Your task to perform on an android device: Go to Amazon Image 0: 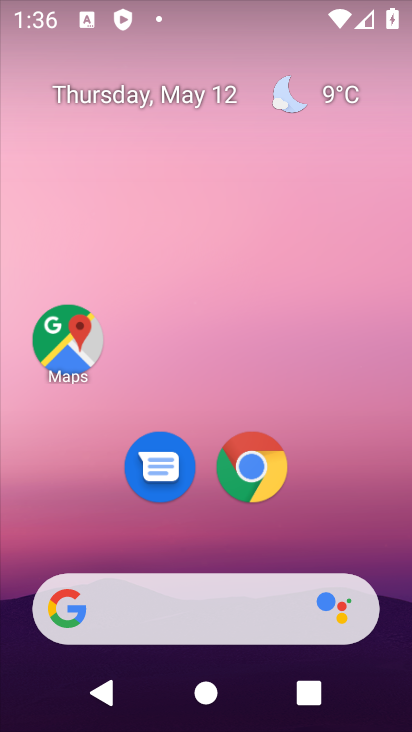
Step 0: drag from (324, 303) to (320, 138)
Your task to perform on an android device: Go to Amazon Image 1: 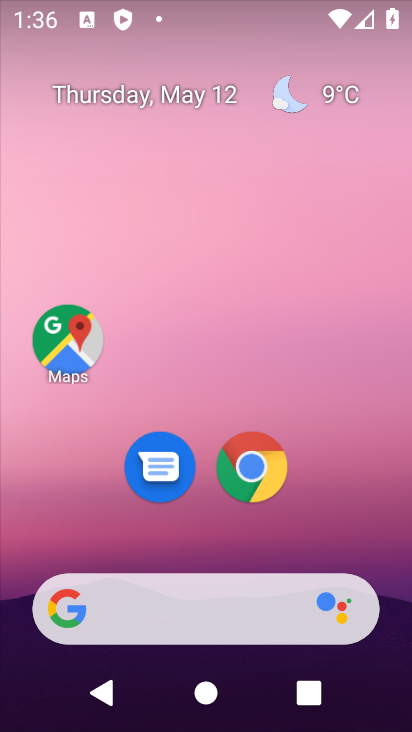
Step 1: drag from (255, 487) to (255, 29)
Your task to perform on an android device: Go to Amazon Image 2: 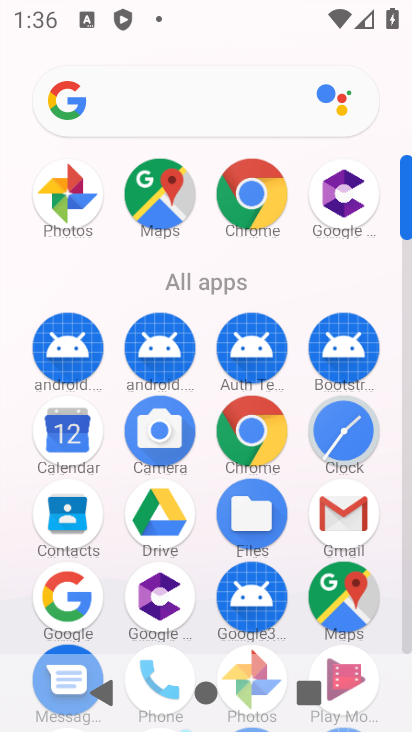
Step 2: click (243, 195)
Your task to perform on an android device: Go to Amazon Image 3: 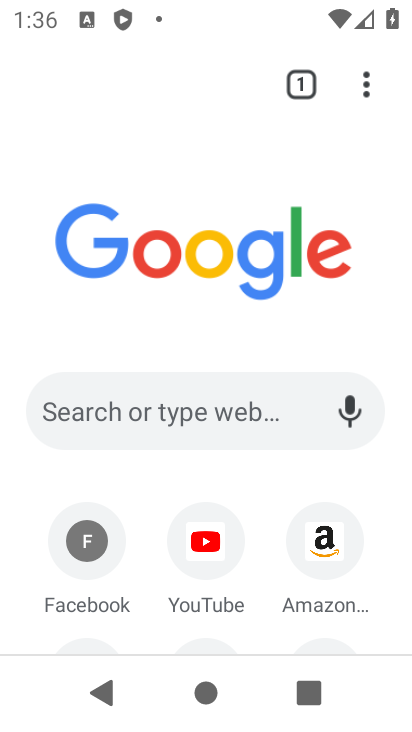
Step 3: click (334, 533)
Your task to perform on an android device: Go to Amazon Image 4: 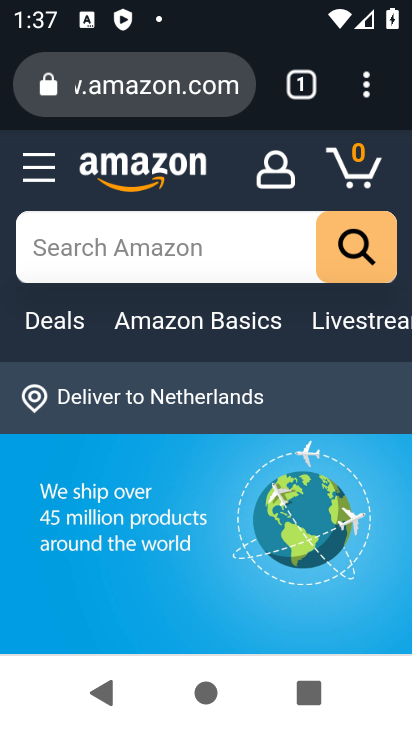
Step 4: task complete